Your task to perform on an android device: set the timer Image 0: 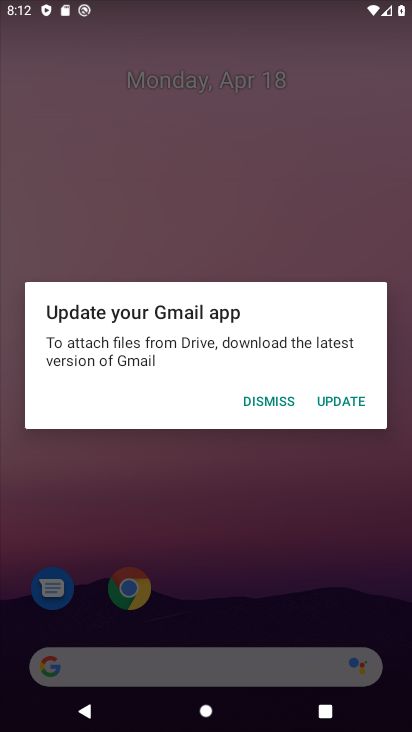
Step 0: press home button
Your task to perform on an android device: set the timer Image 1: 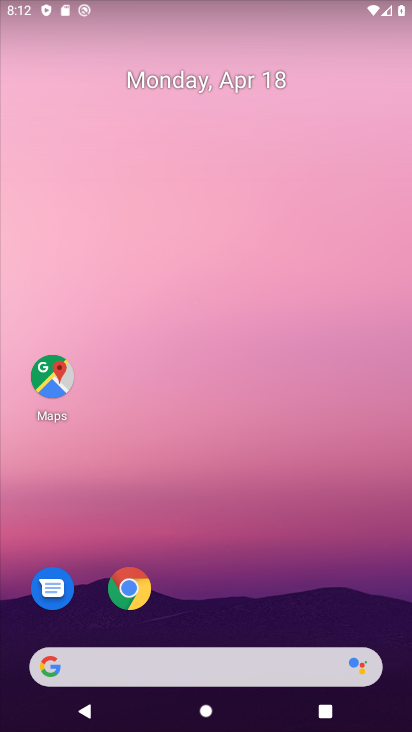
Step 1: drag from (267, 552) to (204, 0)
Your task to perform on an android device: set the timer Image 2: 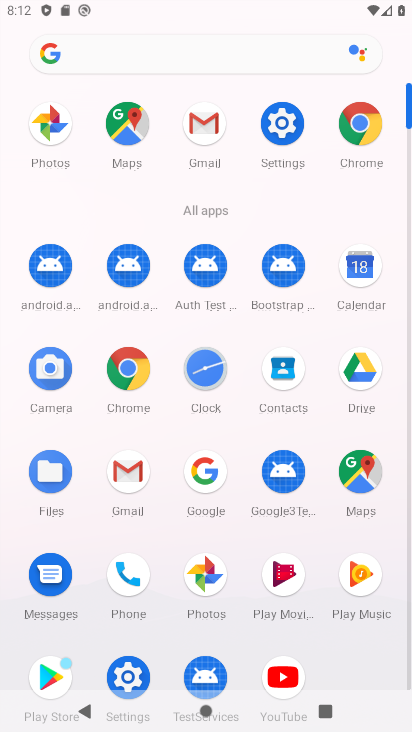
Step 2: click (204, 367)
Your task to perform on an android device: set the timer Image 3: 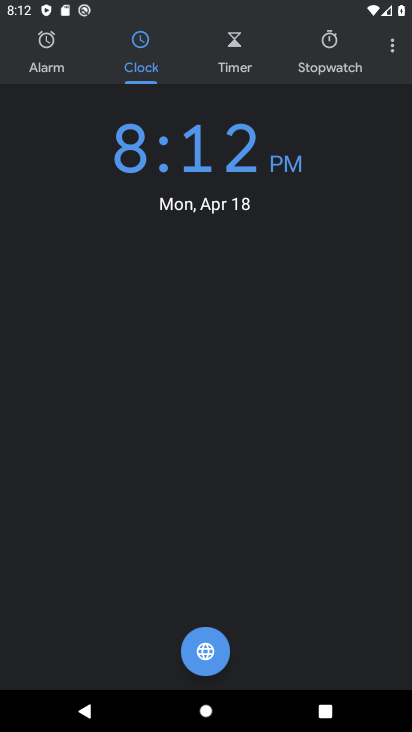
Step 3: click (232, 40)
Your task to perform on an android device: set the timer Image 4: 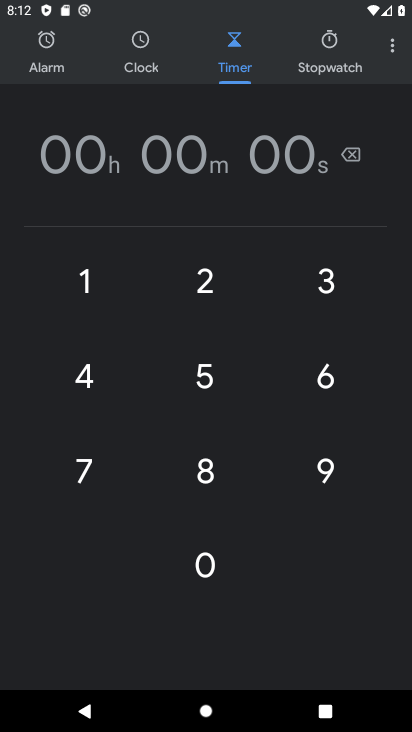
Step 4: click (96, 275)
Your task to perform on an android device: set the timer Image 5: 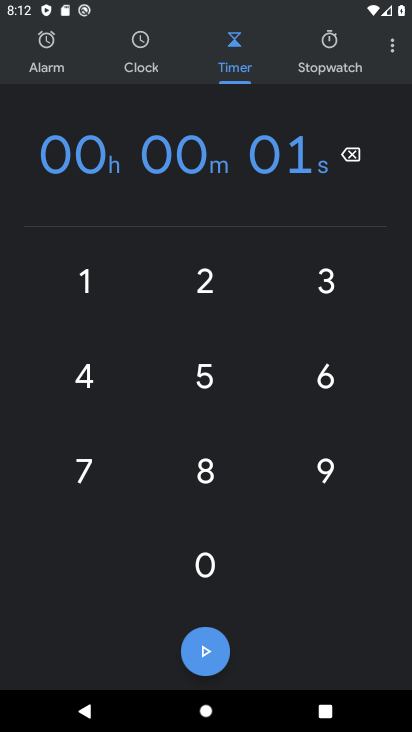
Step 5: click (205, 558)
Your task to perform on an android device: set the timer Image 6: 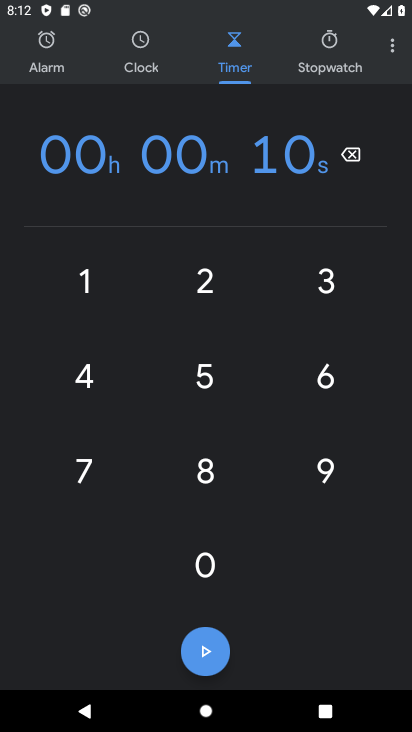
Step 6: click (203, 464)
Your task to perform on an android device: set the timer Image 7: 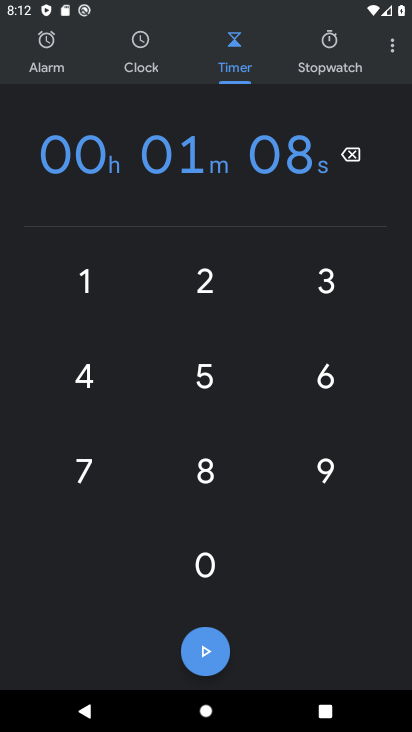
Step 7: click (219, 369)
Your task to perform on an android device: set the timer Image 8: 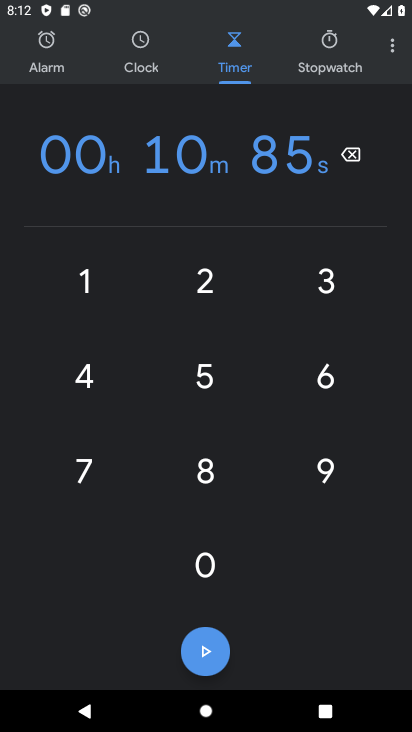
Step 8: click (92, 282)
Your task to perform on an android device: set the timer Image 9: 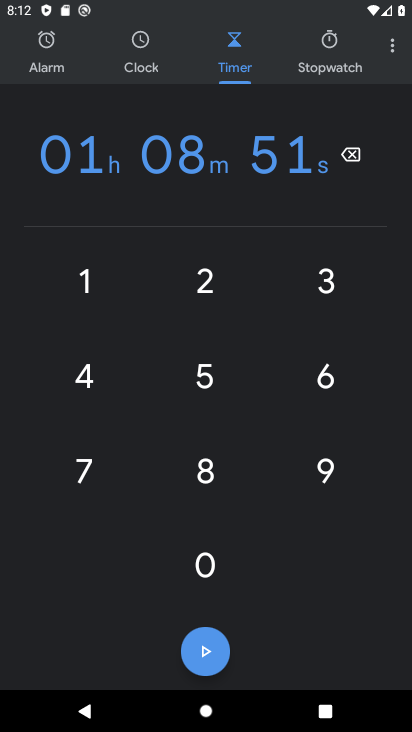
Step 9: task complete